Your task to perform on an android device: Open eBay Image 0: 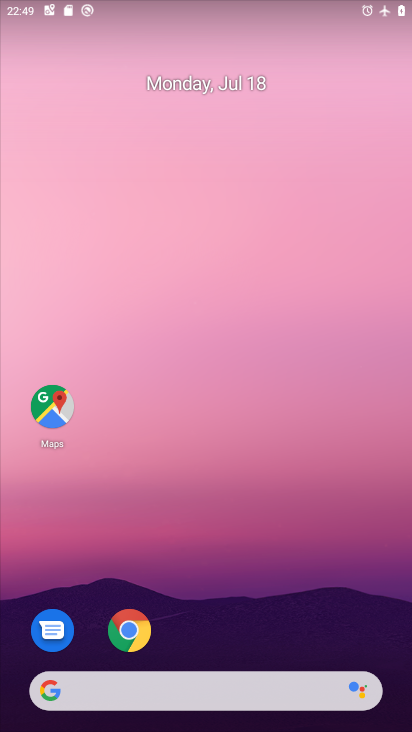
Step 0: click (140, 634)
Your task to perform on an android device: Open eBay Image 1: 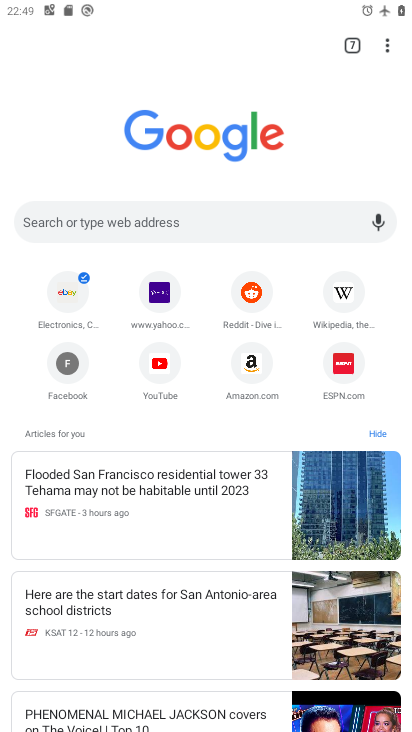
Step 1: click (70, 299)
Your task to perform on an android device: Open eBay Image 2: 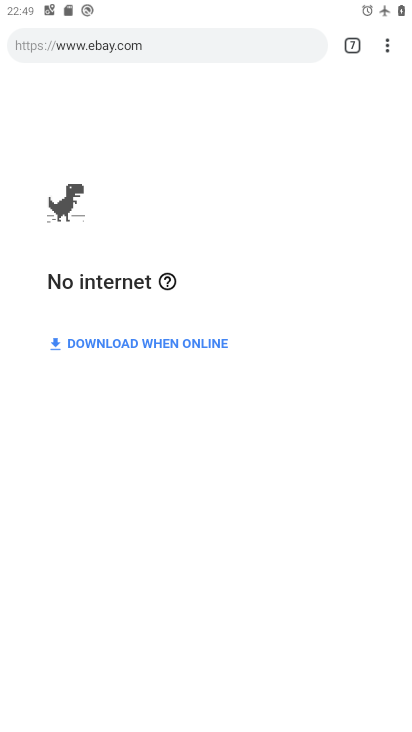
Step 2: task complete